Your task to perform on an android device: find photos in the google photos app Image 0: 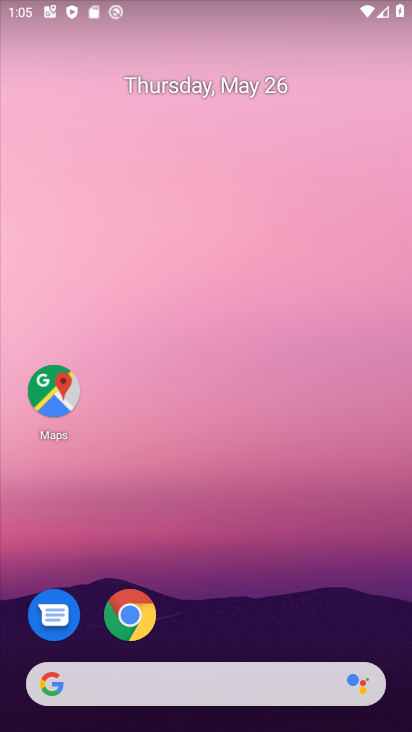
Step 0: drag from (201, 649) to (293, 105)
Your task to perform on an android device: find photos in the google photos app Image 1: 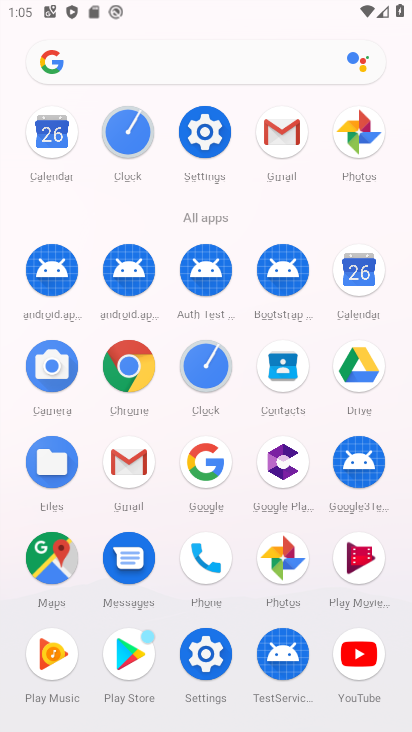
Step 1: click (286, 548)
Your task to perform on an android device: find photos in the google photos app Image 2: 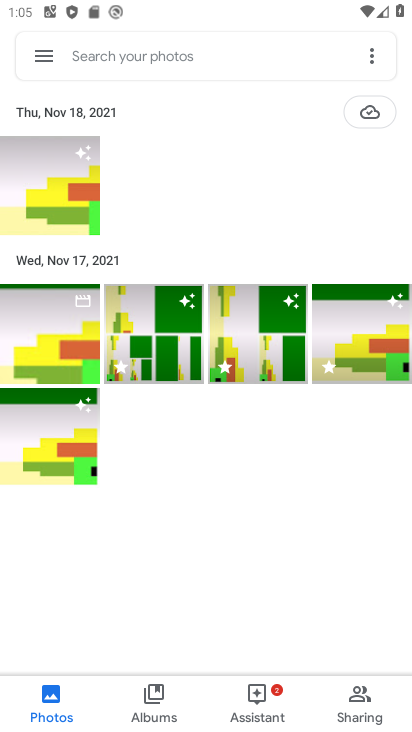
Step 2: click (43, 721)
Your task to perform on an android device: find photos in the google photos app Image 3: 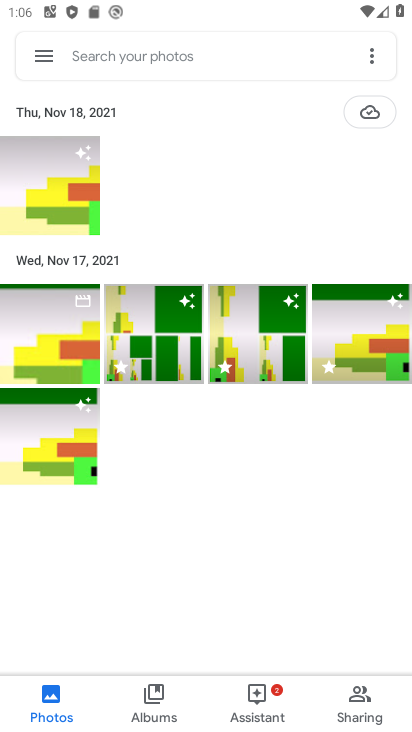
Step 3: task complete